Your task to perform on an android device: View the shopping cart on walmart. Image 0: 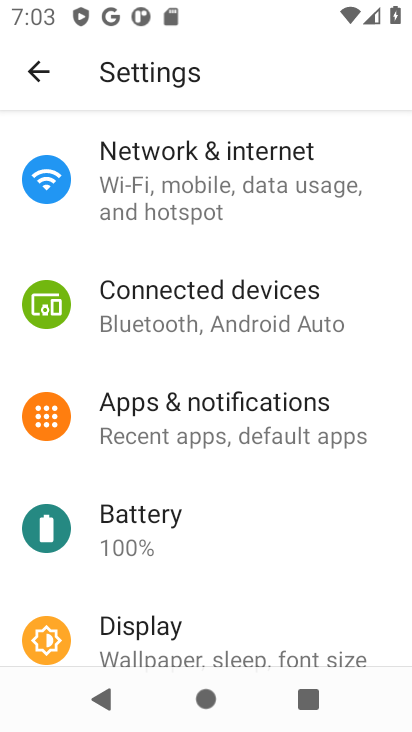
Step 0: press home button
Your task to perform on an android device: View the shopping cart on walmart. Image 1: 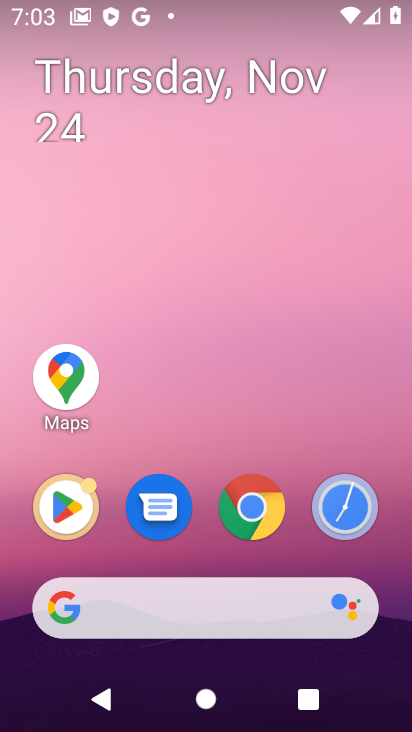
Step 1: click (253, 513)
Your task to perform on an android device: View the shopping cart on walmart. Image 2: 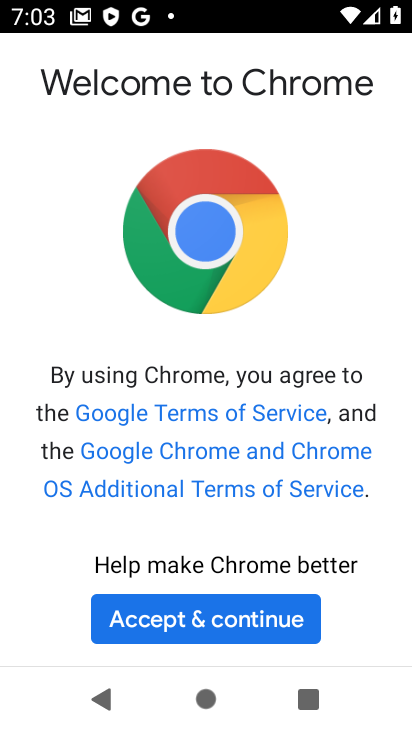
Step 2: click (231, 606)
Your task to perform on an android device: View the shopping cart on walmart. Image 3: 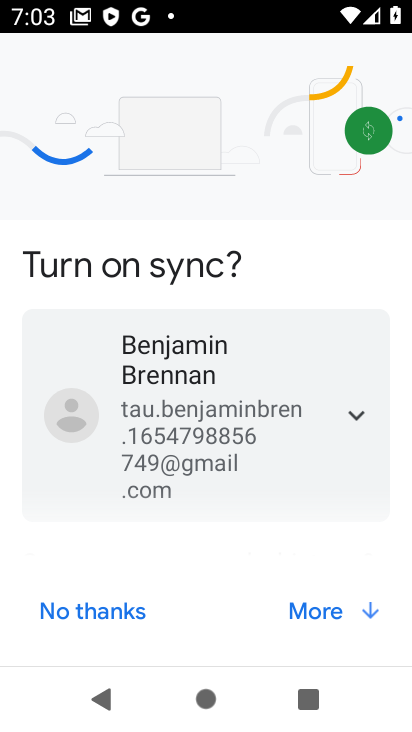
Step 3: click (321, 614)
Your task to perform on an android device: View the shopping cart on walmart. Image 4: 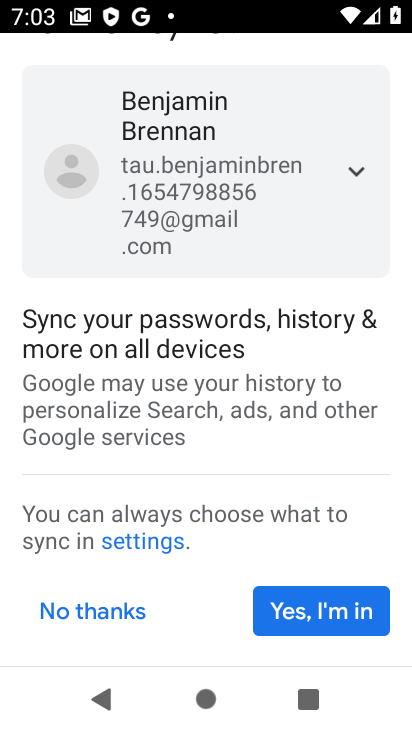
Step 4: click (321, 614)
Your task to perform on an android device: View the shopping cart on walmart. Image 5: 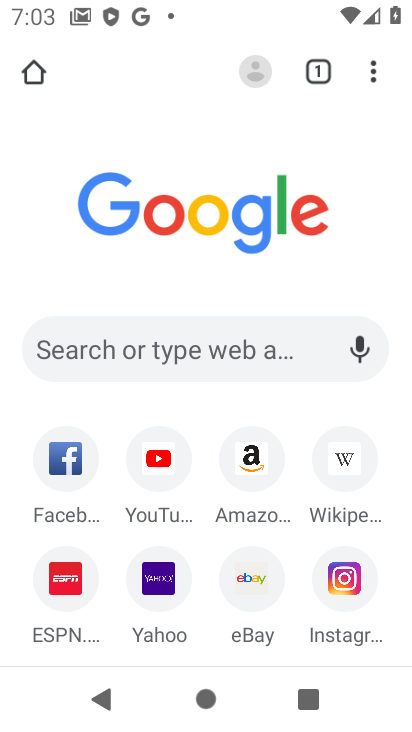
Step 5: click (204, 347)
Your task to perform on an android device: View the shopping cart on walmart. Image 6: 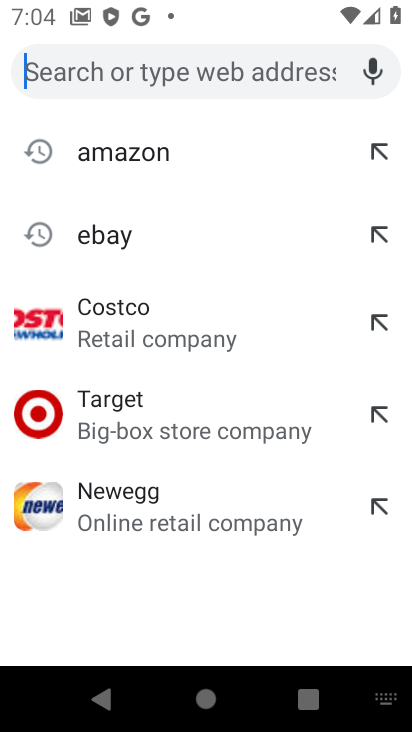
Step 6: type "walmart"
Your task to perform on an android device: View the shopping cart on walmart. Image 7: 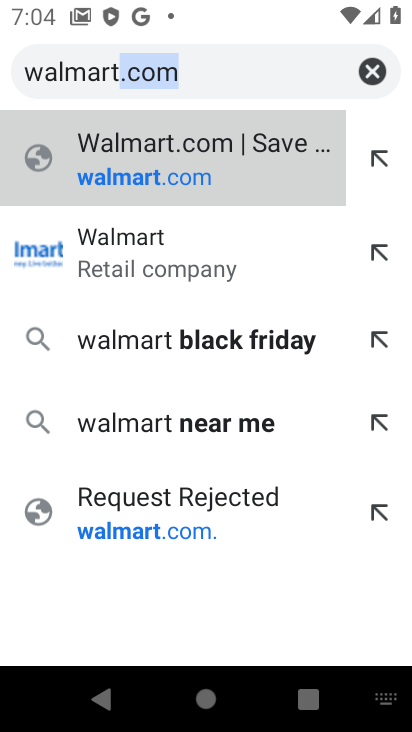
Step 7: click (156, 172)
Your task to perform on an android device: View the shopping cart on walmart. Image 8: 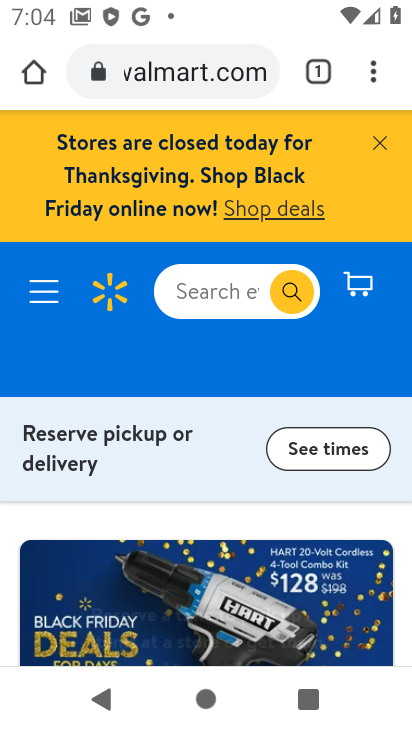
Step 8: click (362, 285)
Your task to perform on an android device: View the shopping cart on walmart. Image 9: 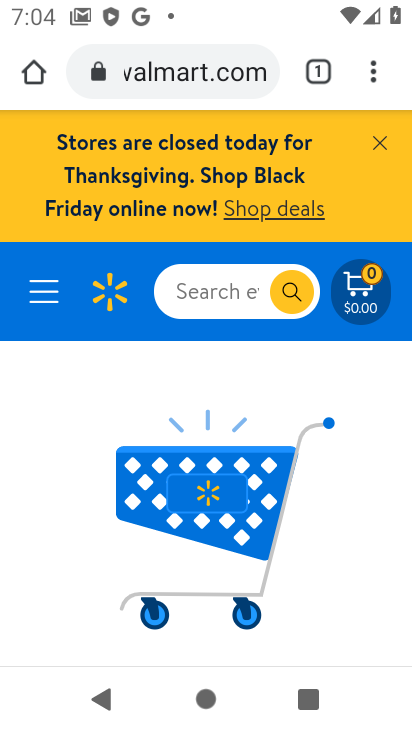
Step 9: task complete